Your task to perform on an android device: Go to CNN.com Image 0: 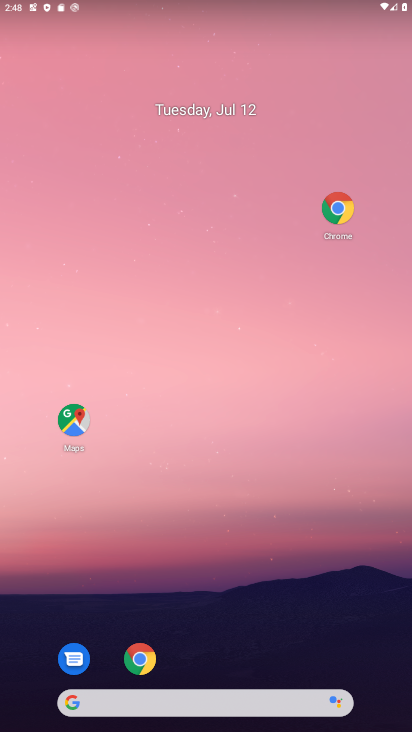
Step 0: drag from (234, 688) to (239, 272)
Your task to perform on an android device: Go to CNN.com Image 1: 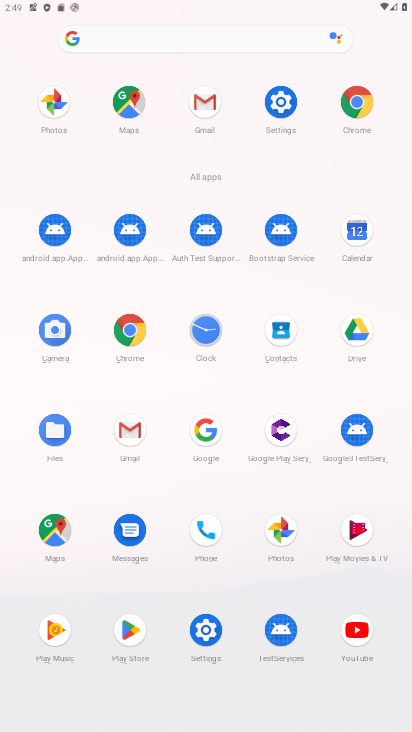
Step 1: click (354, 98)
Your task to perform on an android device: Go to CNN.com Image 2: 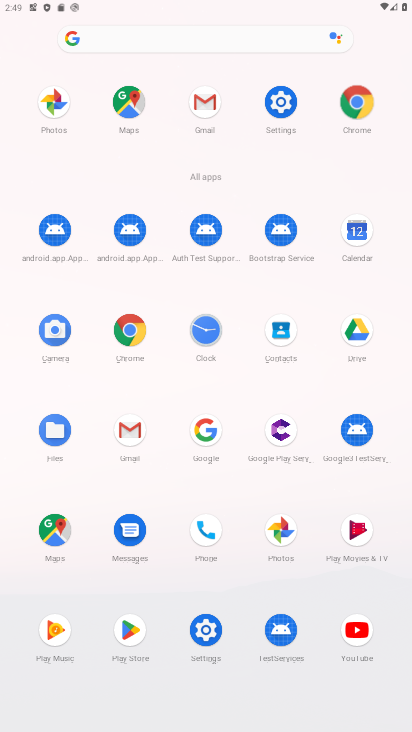
Step 2: click (355, 98)
Your task to perform on an android device: Go to CNN.com Image 3: 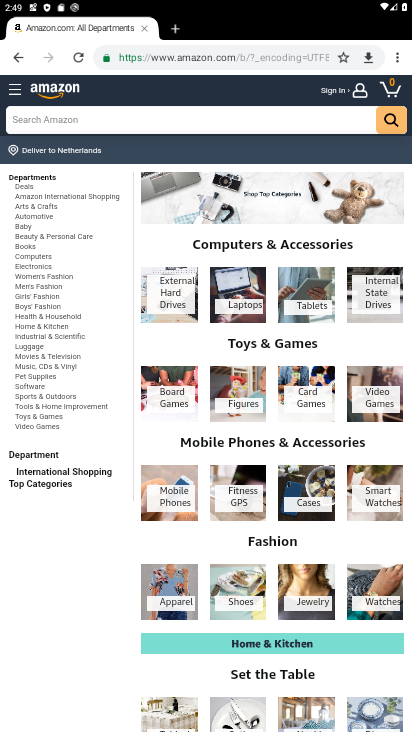
Step 3: press back button
Your task to perform on an android device: Go to CNN.com Image 4: 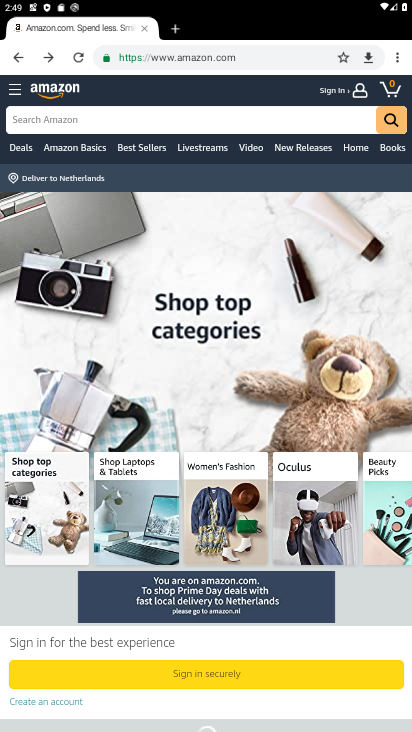
Step 4: press home button
Your task to perform on an android device: Go to CNN.com Image 5: 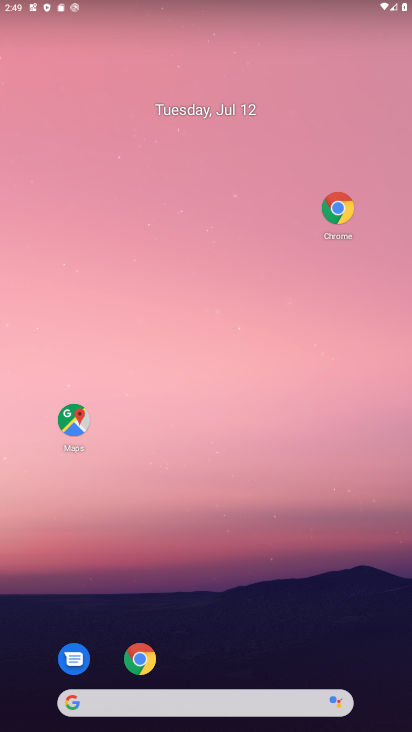
Step 5: click (184, 15)
Your task to perform on an android device: Go to CNN.com Image 6: 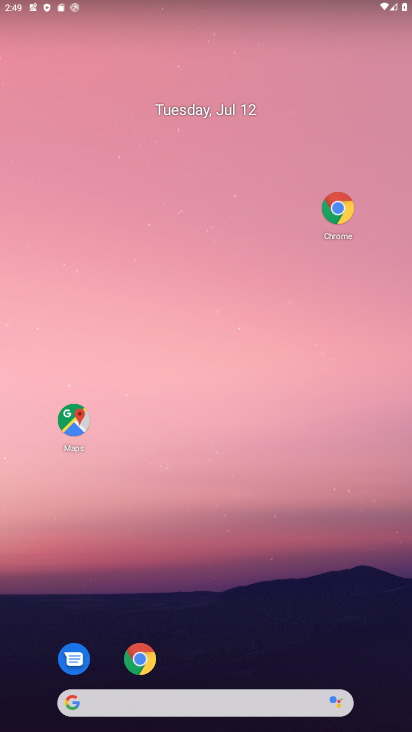
Step 6: drag from (243, 349) to (155, 38)
Your task to perform on an android device: Go to CNN.com Image 7: 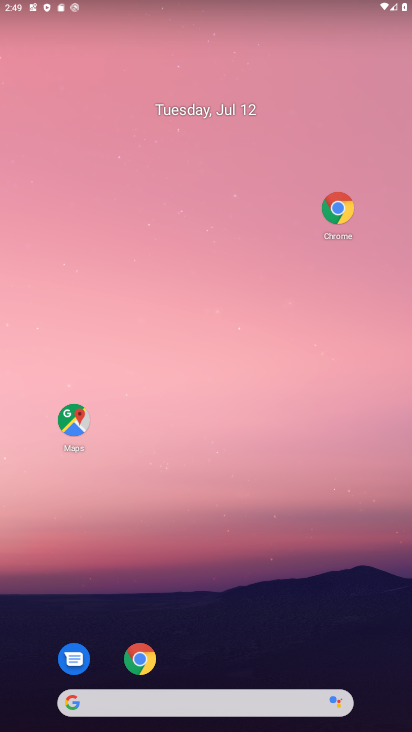
Step 7: drag from (218, 265) to (218, 80)
Your task to perform on an android device: Go to CNN.com Image 8: 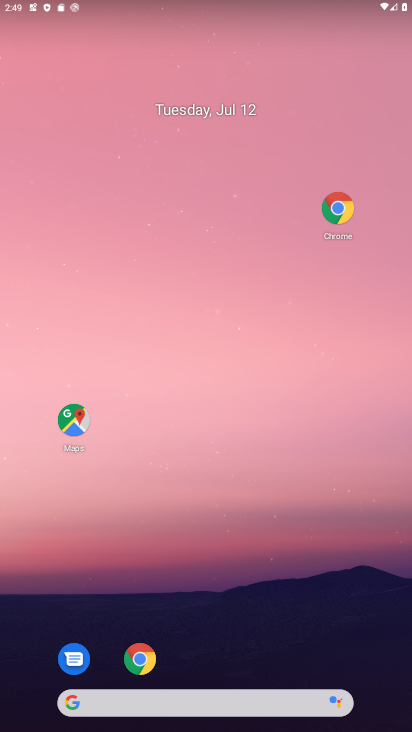
Step 8: drag from (211, 707) to (178, 93)
Your task to perform on an android device: Go to CNN.com Image 9: 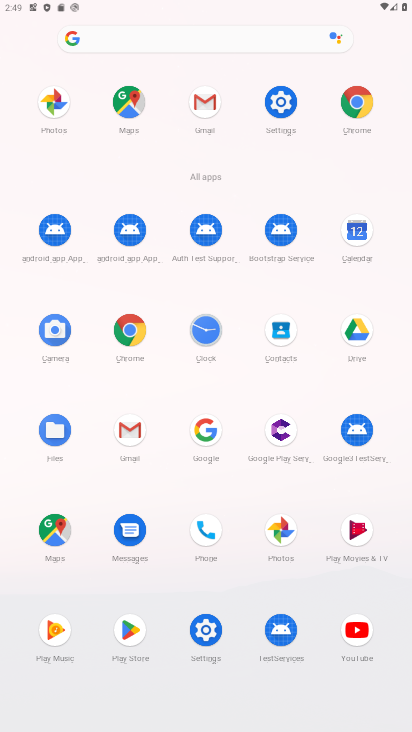
Step 9: click (362, 100)
Your task to perform on an android device: Go to CNN.com Image 10: 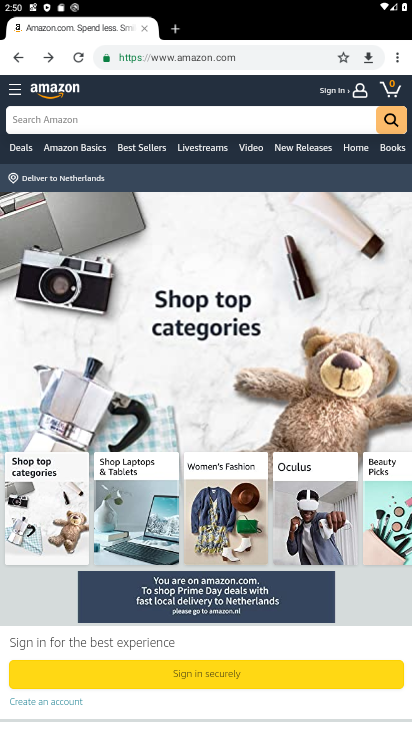
Step 10: click (395, 57)
Your task to perform on an android device: Go to CNN.com Image 11: 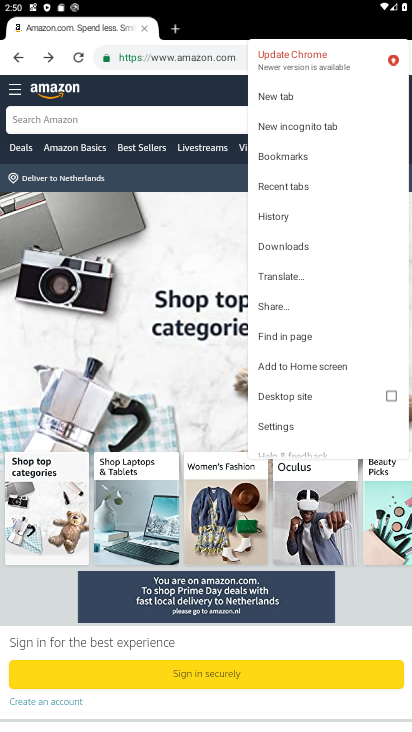
Step 11: press back button
Your task to perform on an android device: Go to CNN.com Image 12: 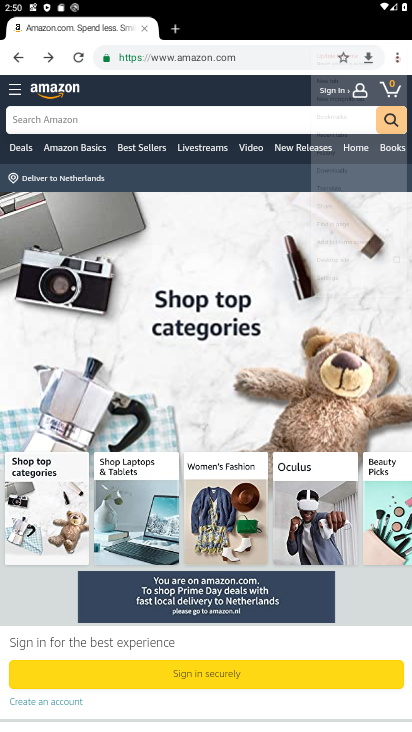
Step 12: press back button
Your task to perform on an android device: Go to CNN.com Image 13: 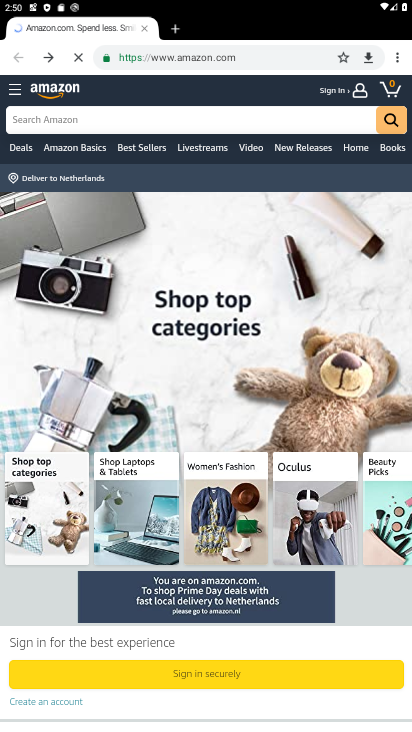
Step 13: press back button
Your task to perform on an android device: Go to CNN.com Image 14: 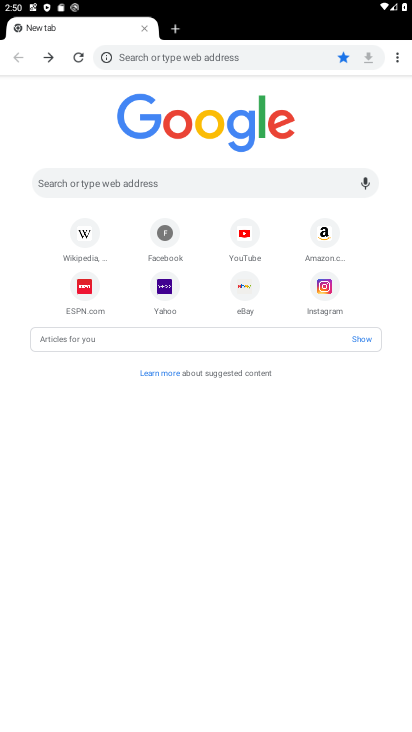
Step 14: press home button
Your task to perform on an android device: Go to CNN.com Image 15: 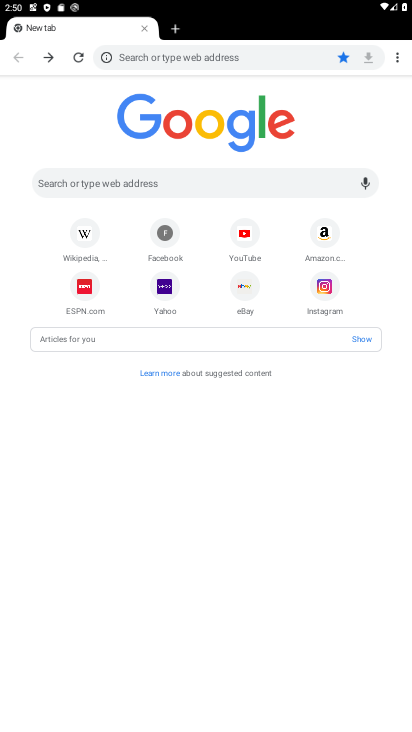
Step 15: press home button
Your task to perform on an android device: Go to CNN.com Image 16: 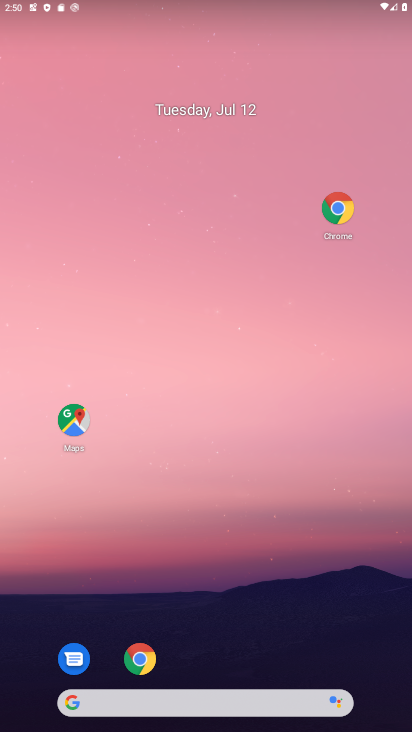
Step 16: click (103, 186)
Your task to perform on an android device: Go to CNN.com Image 17: 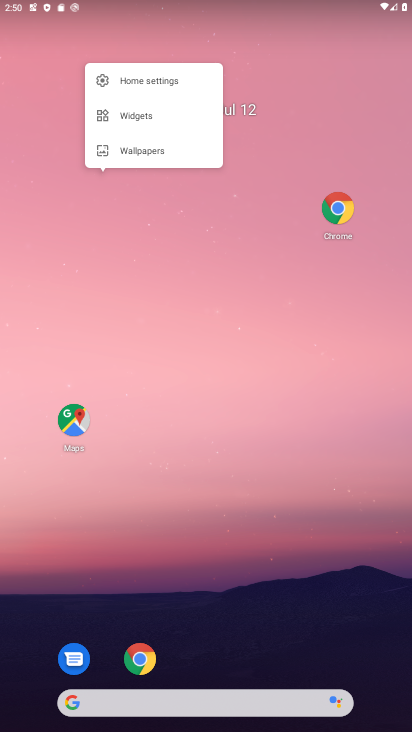
Step 17: drag from (224, 592) to (141, 198)
Your task to perform on an android device: Go to CNN.com Image 18: 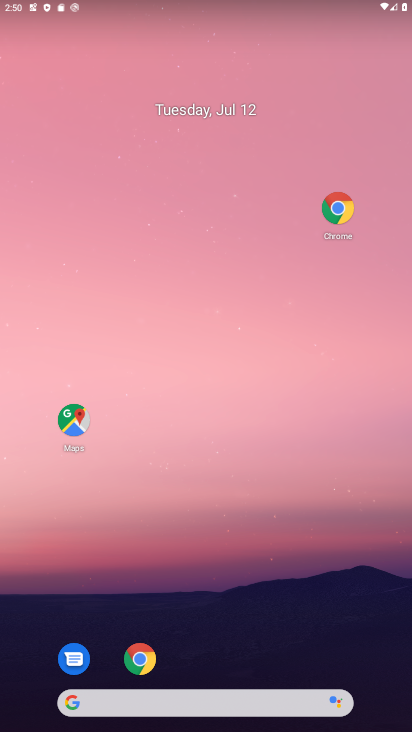
Step 18: drag from (239, 548) to (233, 224)
Your task to perform on an android device: Go to CNN.com Image 19: 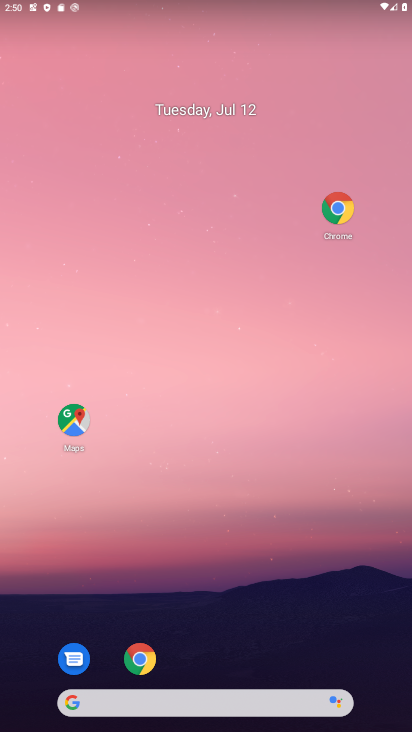
Step 19: drag from (203, 4) to (246, 164)
Your task to perform on an android device: Go to CNN.com Image 20: 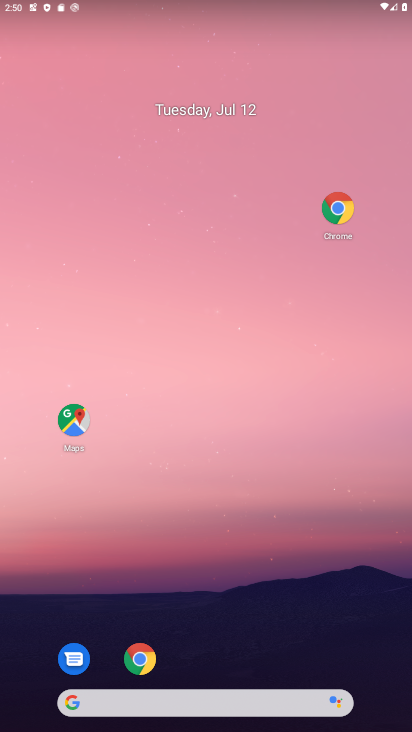
Step 20: drag from (249, 402) to (248, 274)
Your task to perform on an android device: Go to CNN.com Image 21: 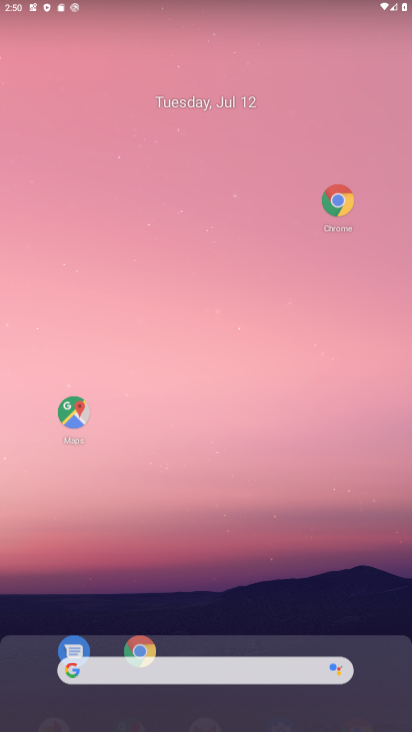
Step 21: drag from (250, 672) to (200, 49)
Your task to perform on an android device: Go to CNN.com Image 22: 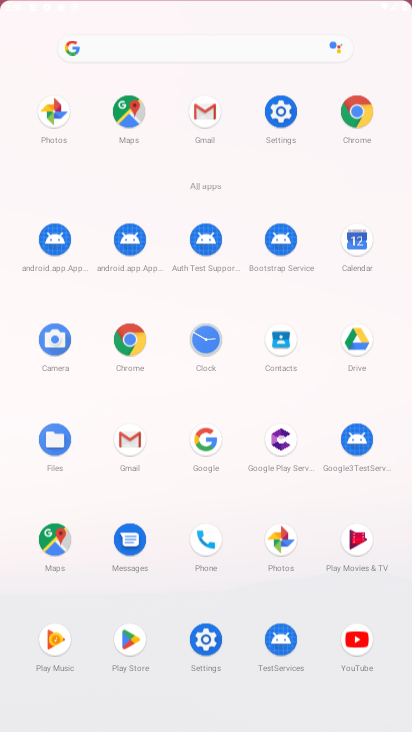
Step 22: drag from (217, 563) to (204, 117)
Your task to perform on an android device: Go to CNN.com Image 23: 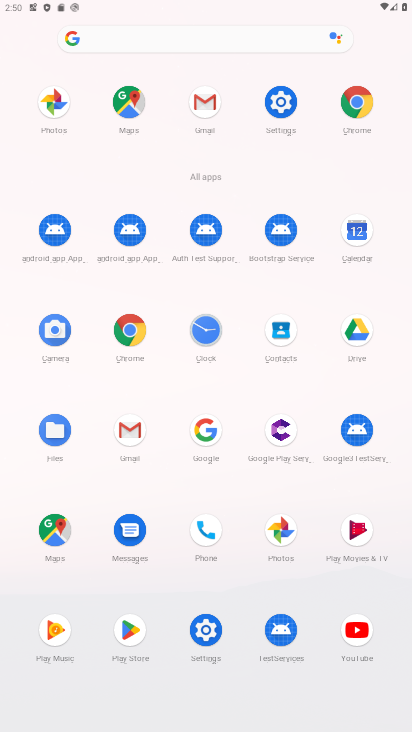
Step 23: click (356, 94)
Your task to perform on an android device: Go to CNN.com Image 24: 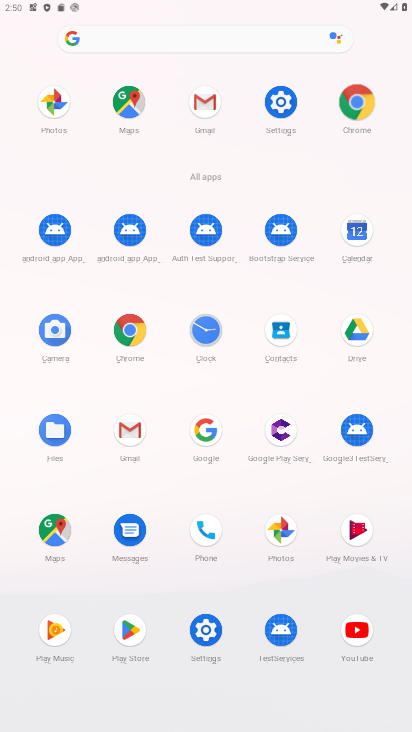
Step 24: click (358, 94)
Your task to perform on an android device: Go to CNN.com Image 25: 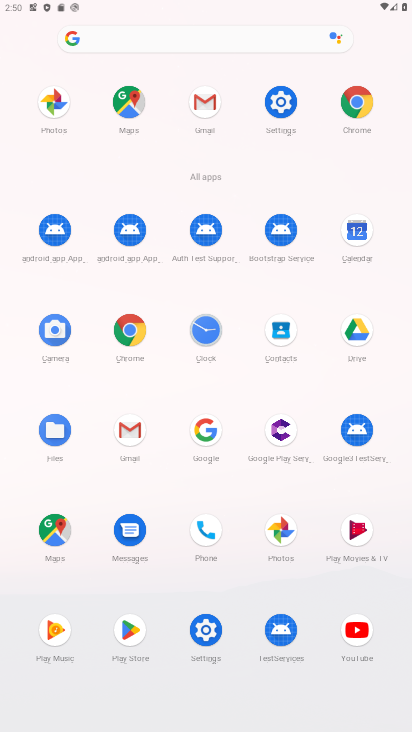
Step 25: click (359, 100)
Your task to perform on an android device: Go to CNN.com Image 26: 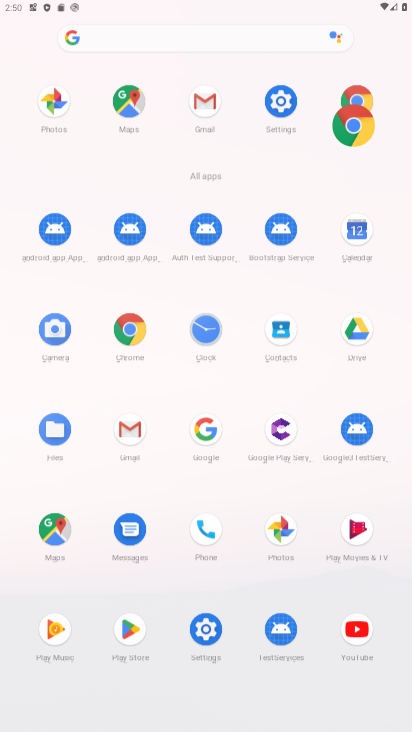
Step 26: click (359, 104)
Your task to perform on an android device: Go to CNN.com Image 27: 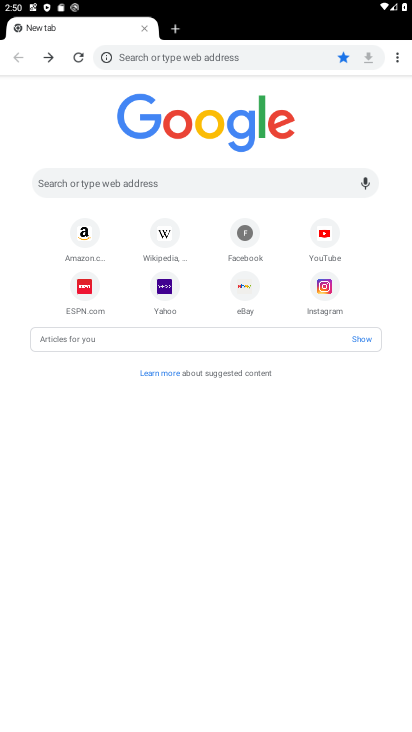
Step 27: click (148, 48)
Your task to perform on an android device: Go to CNN.com Image 28: 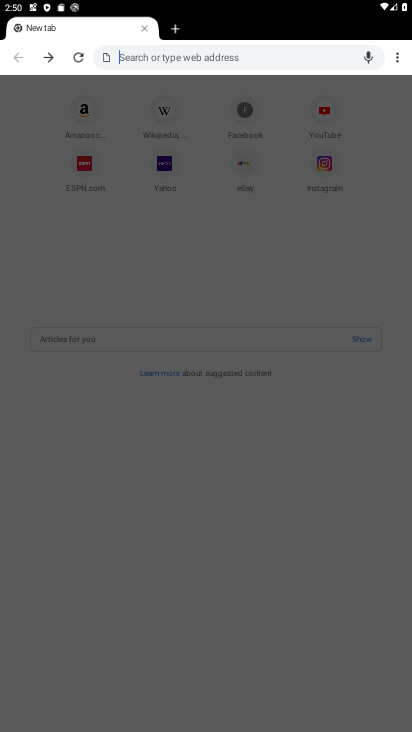
Step 28: click (140, 55)
Your task to perform on an android device: Go to CNN.com Image 29: 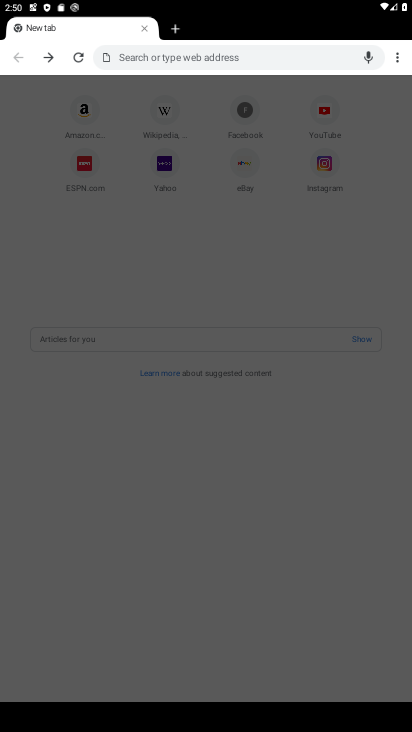
Step 29: click (148, 55)
Your task to perform on an android device: Go to CNN.com Image 30: 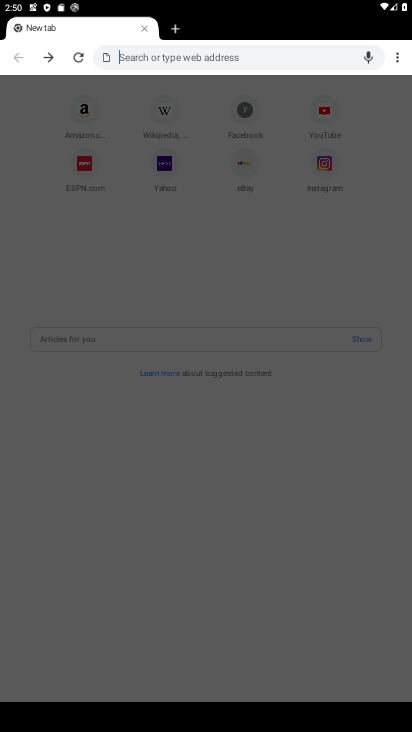
Step 30: type "cnn.cmo"
Your task to perform on an android device: Go to CNN.com Image 31: 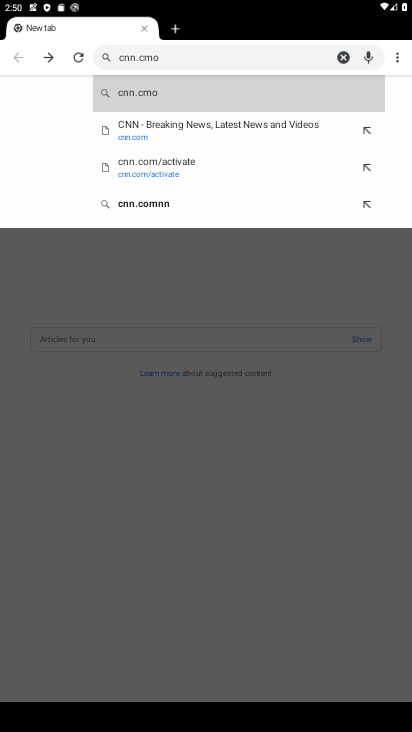
Step 31: click (139, 126)
Your task to perform on an android device: Go to CNN.com Image 32: 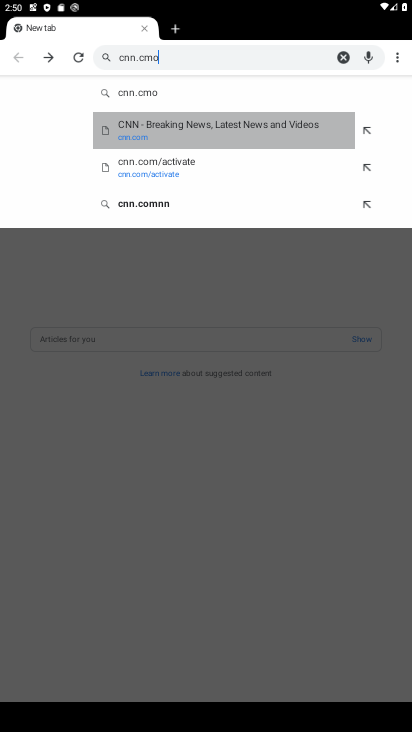
Step 32: click (150, 126)
Your task to perform on an android device: Go to CNN.com Image 33: 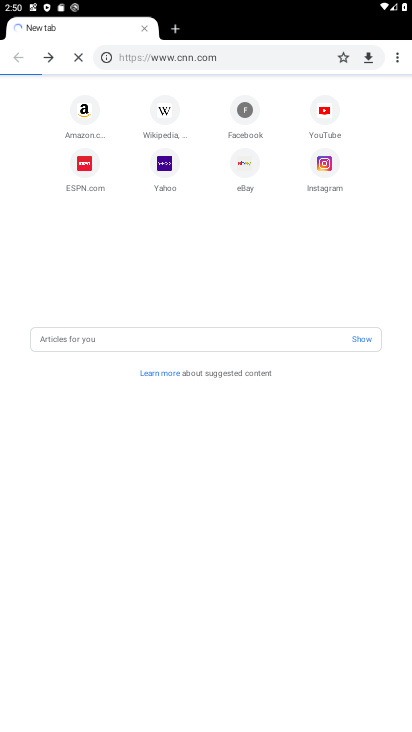
Step 33: click (146, 127)
Your task to perform on an android device: Go to CNN.com Image 34: 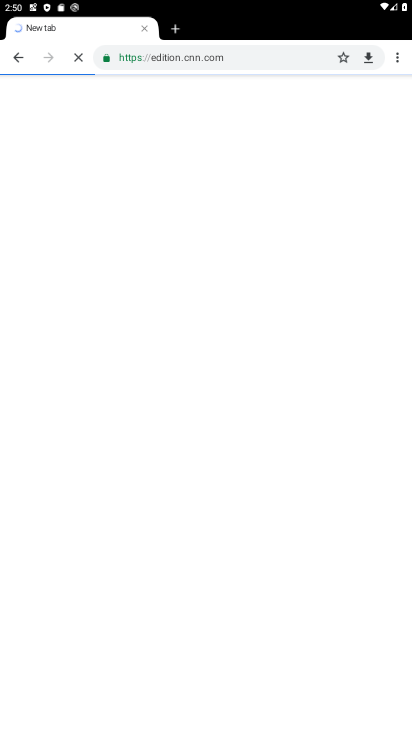
Step 34: click (145, 129)
Your task to perform on an android device: Go to CNN.com Image 35: 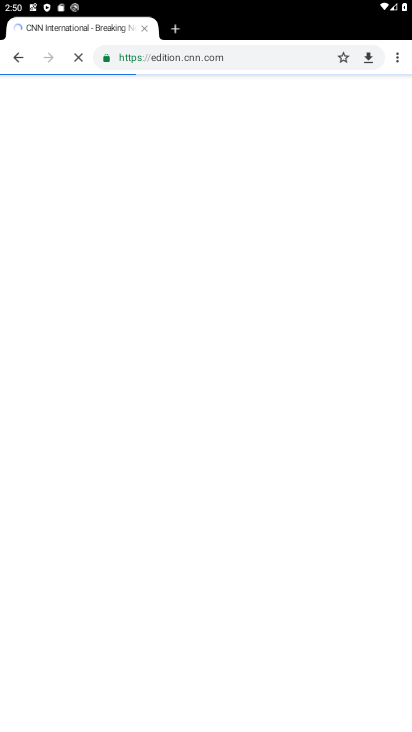
Step 35: task complete